Your task to perform on an android device: read, delete, or share a saved page in the chrome app Image 0: 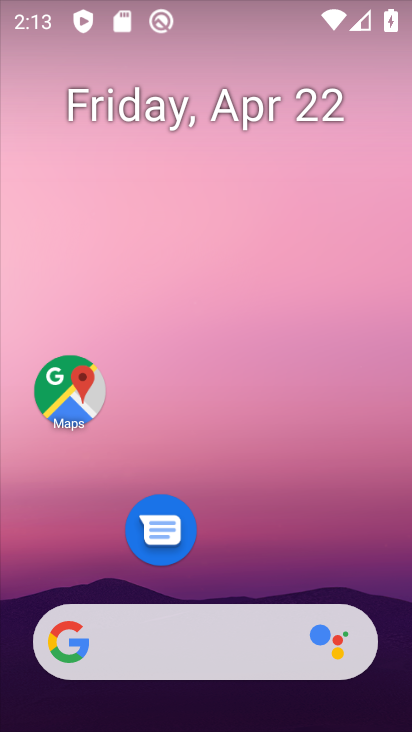
Step 0: drag from (244, 540) to (223, 63)
Your task to perform on an android device: read, delete, or share a saved page in the chrome app Image 1: 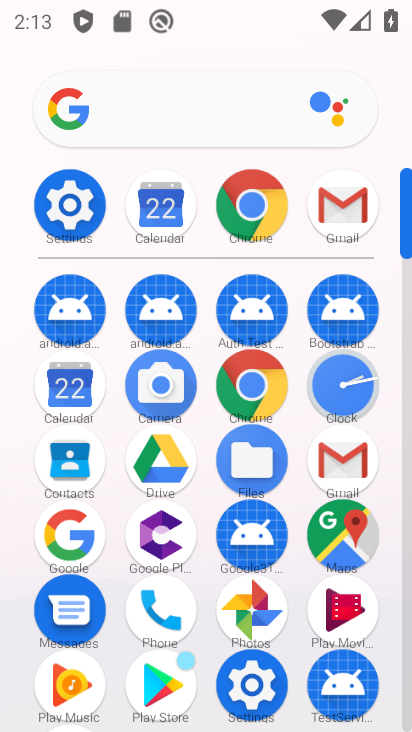
Step 1: click (249, 207)
Your task to perform on an android device: read, delete, or share a saved page in the chrome app Image 2: 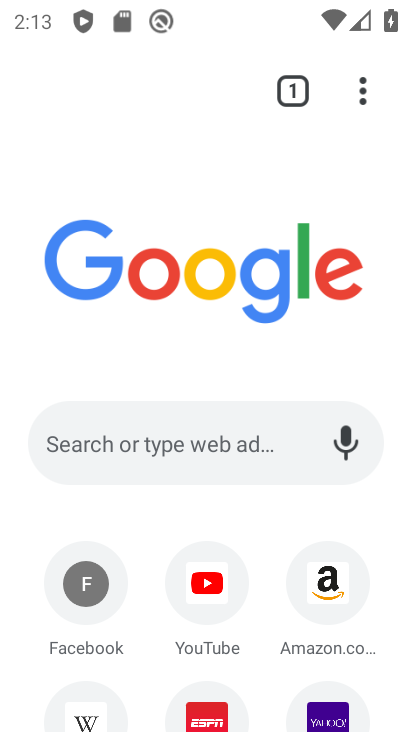
Step 2: click (368, 95)
Your task to perform on an android device: read, delete, or share a saved page in the chrome app Image 3: 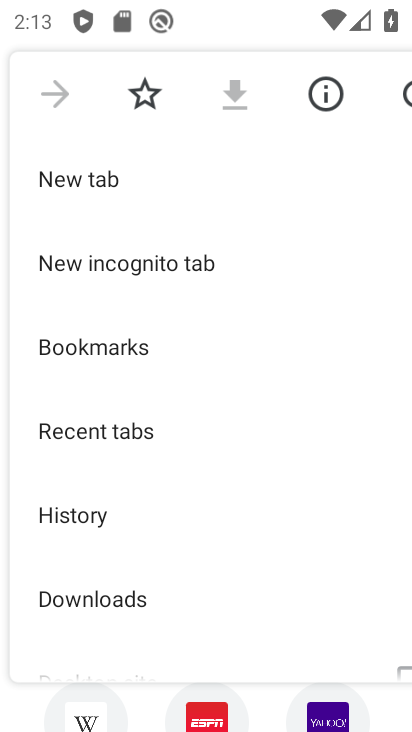
Step 3: drag from (162, 526) to (155, 304)
Your task to perform on an android device: read, delete, or share a saved page in the chrome app Image 4: 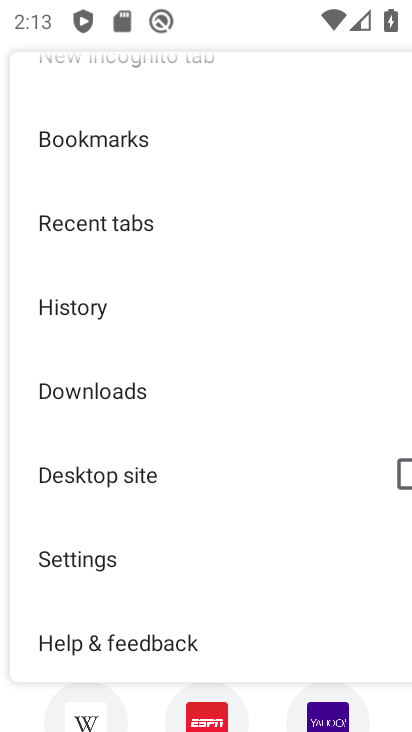
Step 4: click (88, 557)
Your task to perform on an android device: read, delete, or share a saved page in the chrome app Image 5: 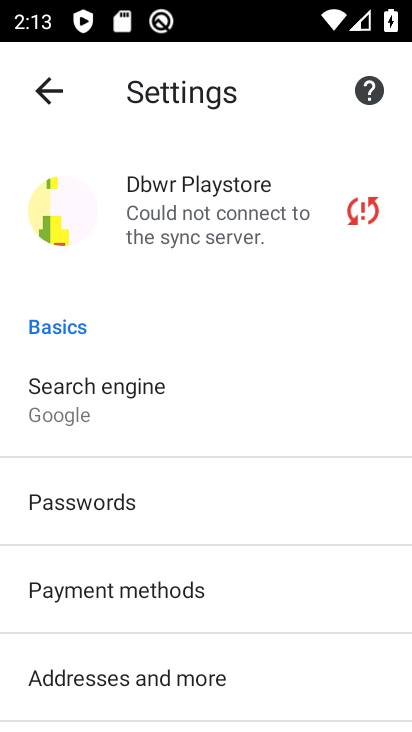
Step 5: drag from (212, 519) to (196, 272)
Your task to perform on an android device: read, delete, or share a saved page in the chrome app Image 6: 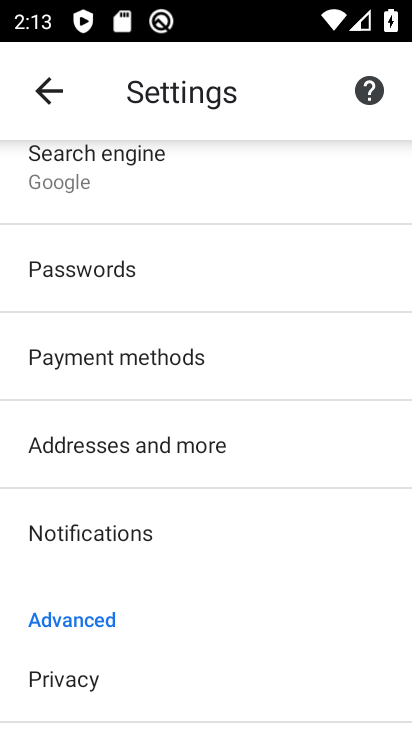
Step 6: drag from (114, 536) to (114, 245)
Your task to perform on an android device: read, delete, or share a saved page in the chrome app Image 7: 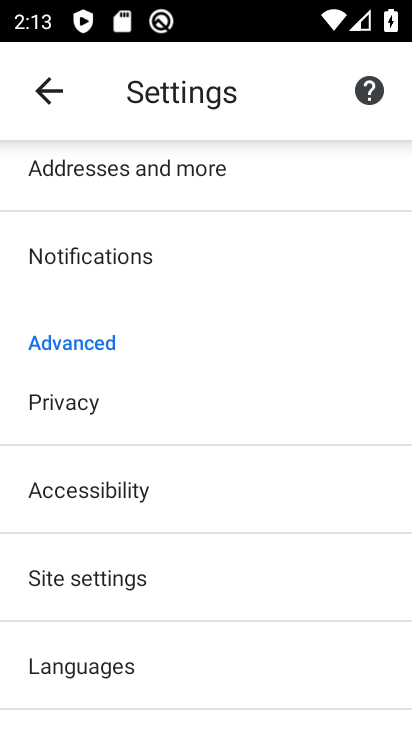
Step 7: drag from (206, 512) to (224, 713)
Your task to perform on an android device: read, delete, or share a saved page in the chrome app Image 8: 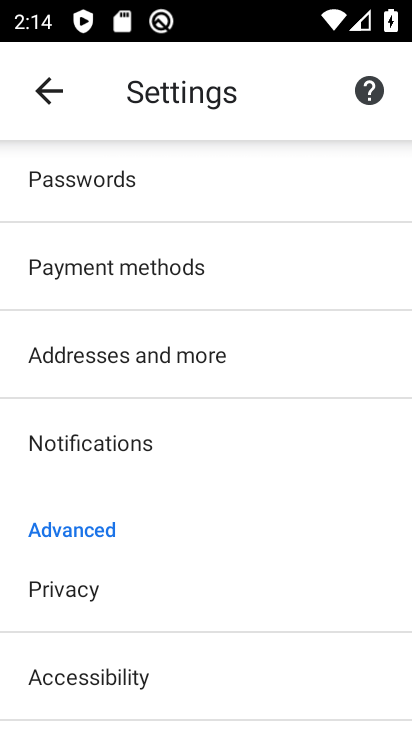
Step 8: click (51, 99)
Your task to perform on an android device: read, delete, or share a saved page in the chrome app Image 9: 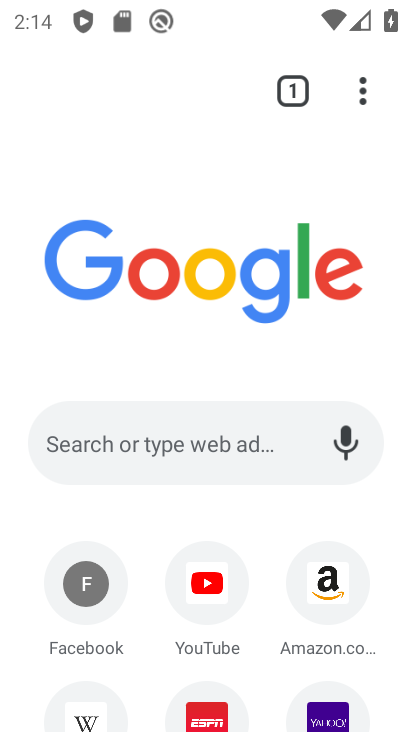
Step 9: click (351, 91)
Your task to perform on an android device: read, delete, or share a saved page in the chrome app Image 10: 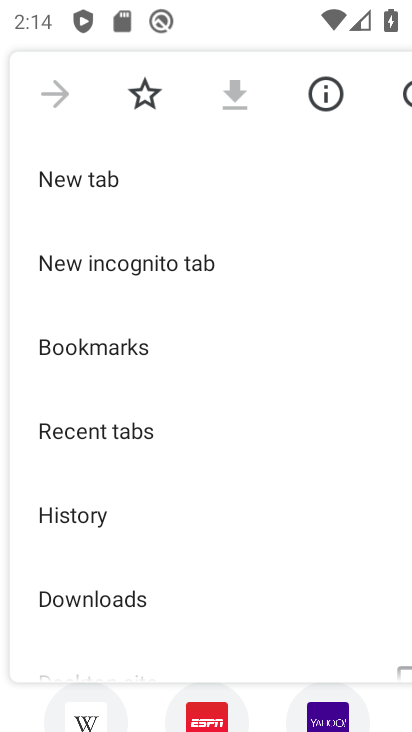
Step 10: click (118, 598)
Your task to perform on an android device: read, delete, or share a saved page in the chrome app Image 11: 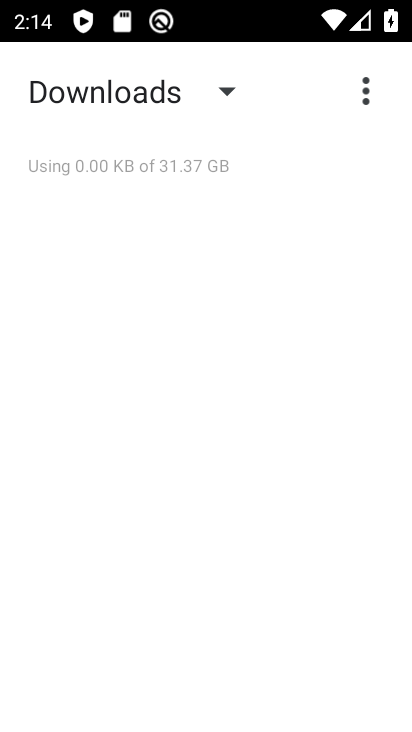
Step 11: task complete